Your task to perform on an android device: toggle notification dots Image 0: 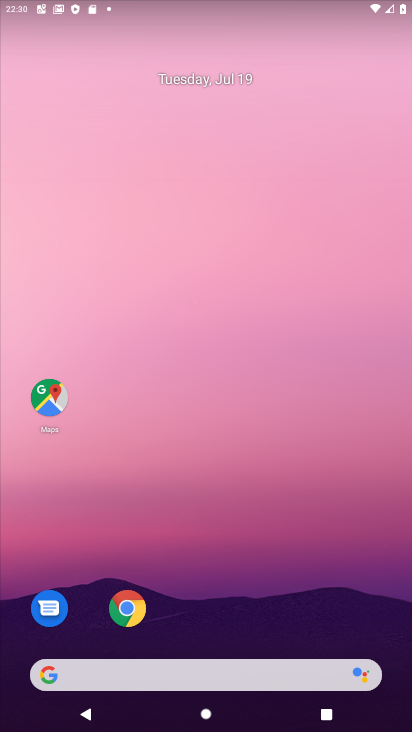
Step 0: drag from (314, 567) to (275, 113)
Your task to perform on an android device: toggle notification dots Image 1: 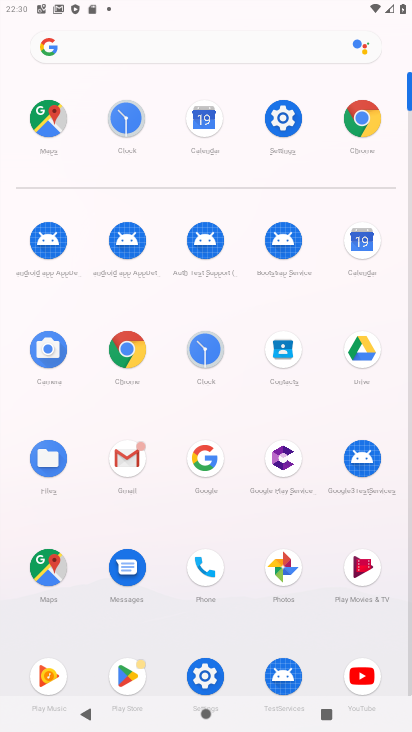
Step 1: click (282, 115)
Your task to perform on an android device: toggle notification dots Image 2: 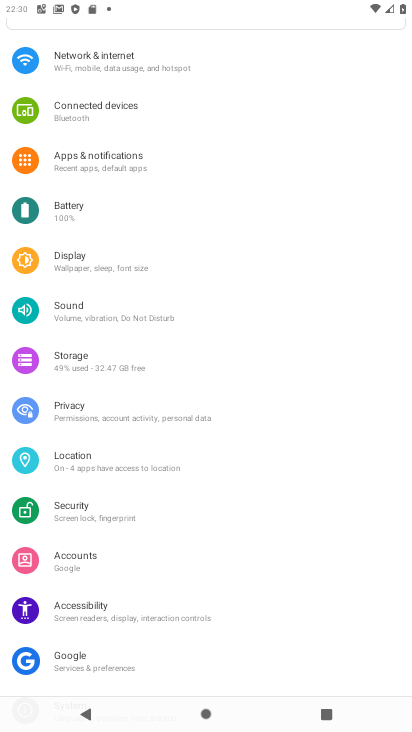
Step 2: click (97, 153)
Your task to perform on an android device: toggle notification dots Image 3: 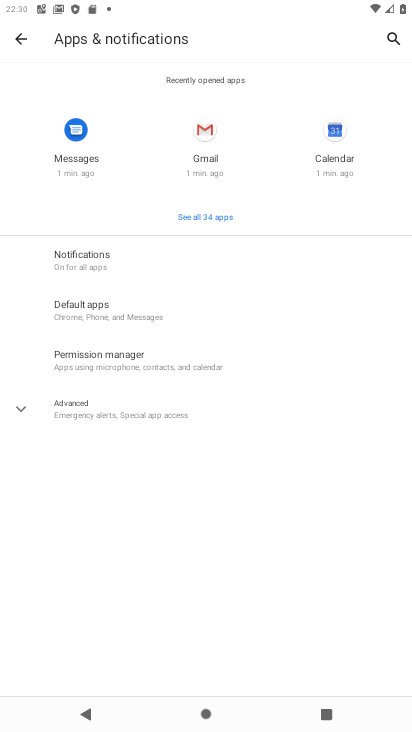
Step 3: click (109, 266)
Your task to perform on an android device: toggle notification dots Image 4: 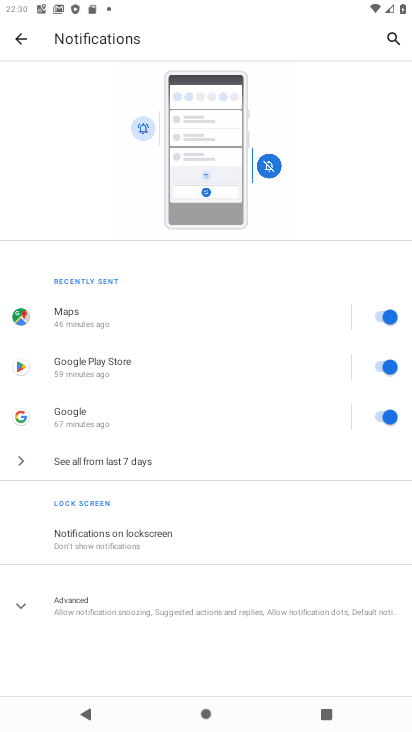
Step 4: click (178, 614)
Your task to perform on an android device: toggle notification dots Image 5: 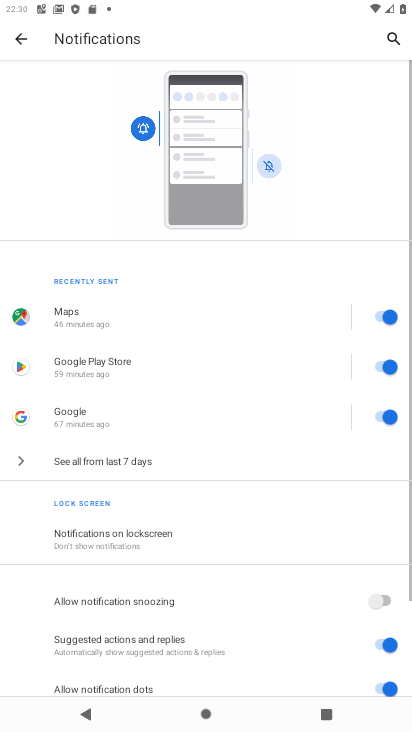
Step 5: drag from (256, 592) to (262, 227)
Your task to perform on an android device: toggle notification dots Image 6: 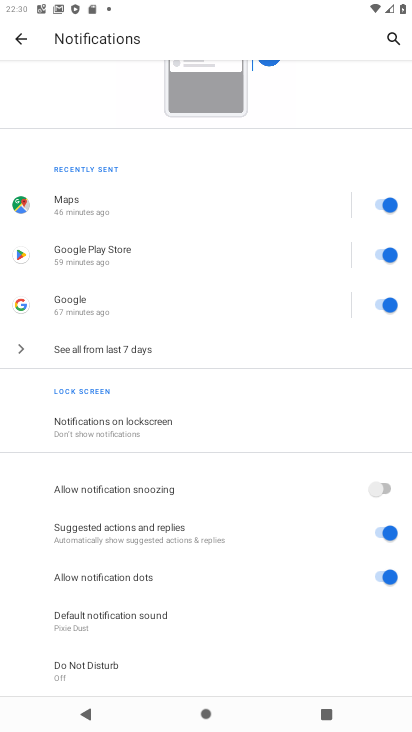
Step 6: click (398, 580)
Your task to perform on an android device: toggle notification dots Image 7: 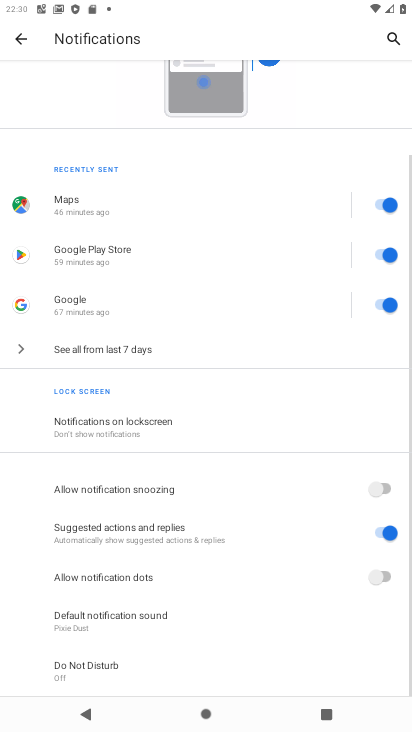
Step 7: task complete